Your task to perform on an android device: Set the phone to "Do not disturb". Image 0: 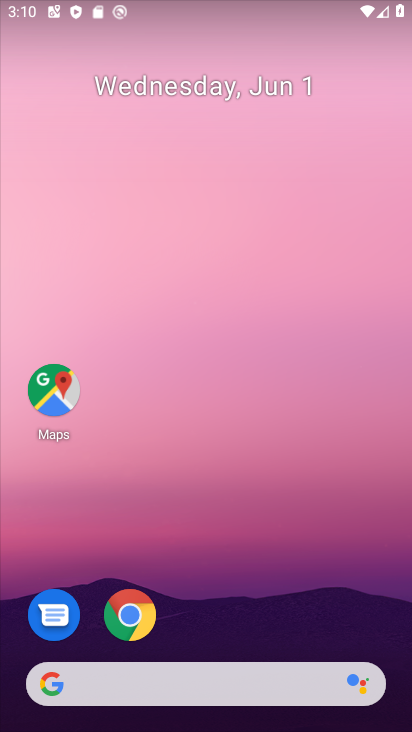
Step 0: drag from (234, 16) to (246, 463)
Your task to perform on an android device: Set the phone to "Do not disturb". Image 1: 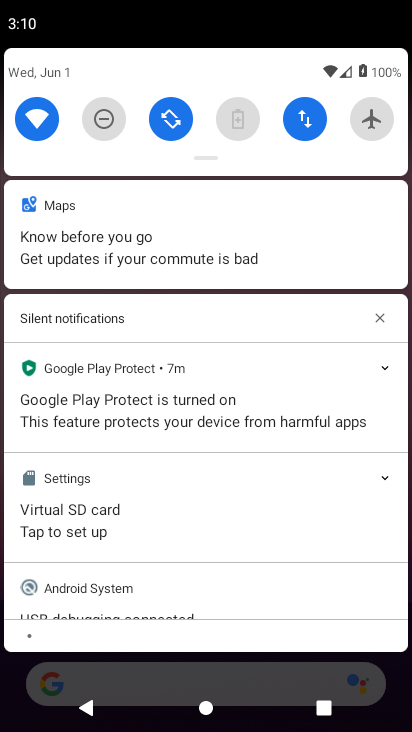
Step 1: click (102, 110)
Your task to perform on an android device: Set the phone to "Do not disturb". Image 2: 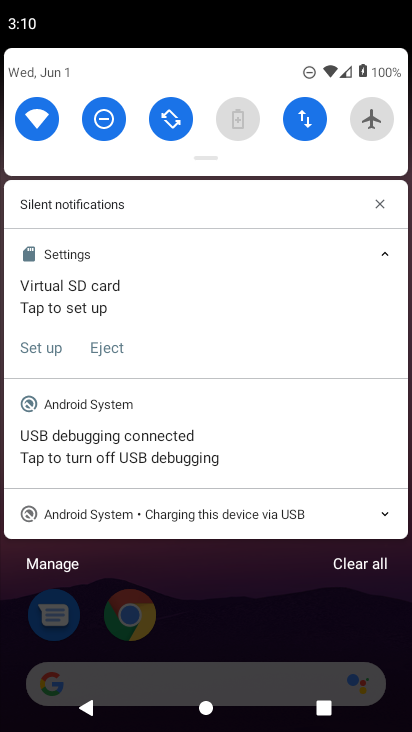
Step 2: task complete